Your task to perform on an android device: turn on showing notifications on the lock screen Image 0: 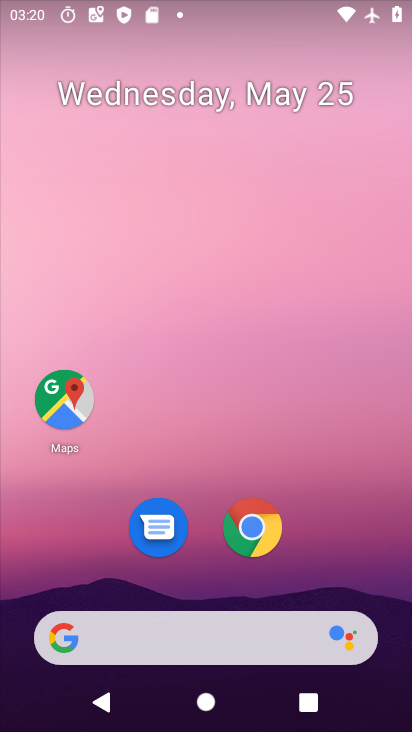
Step 0: drag from (214, 594) to (247, 253)
Your task to perform on an android device: turn on showing notifications on the lock screen Image 1: 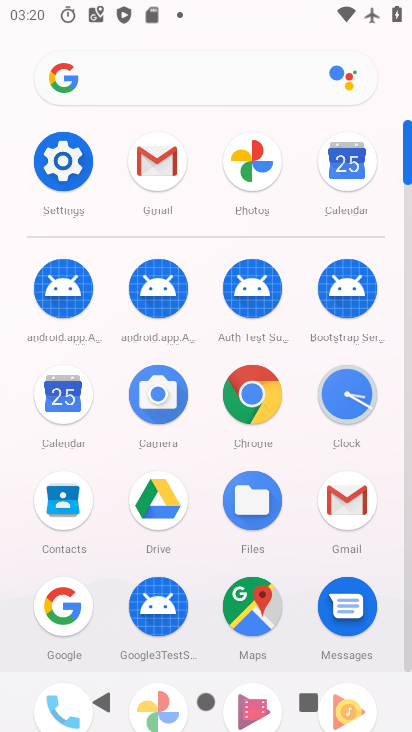
Step 1: click (52, 176)
Your task to perform on an android device: turn on showing notifications on the lock screen Image 2: 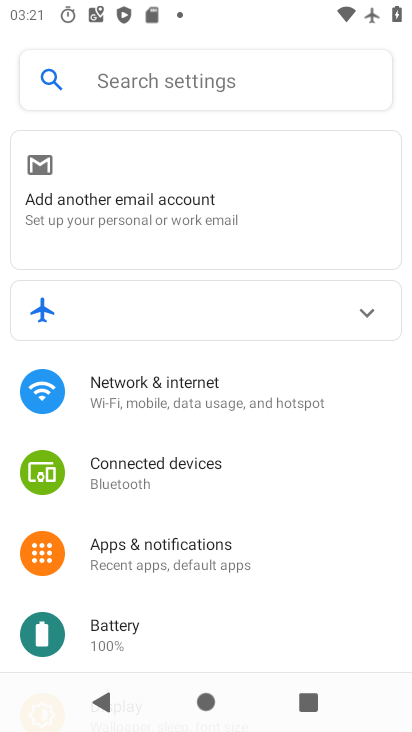
Step 2: drag from (225, 615) to (287, 162)
Your task to perform on an android device: turn on showing notifications on the lock screen Image 3: 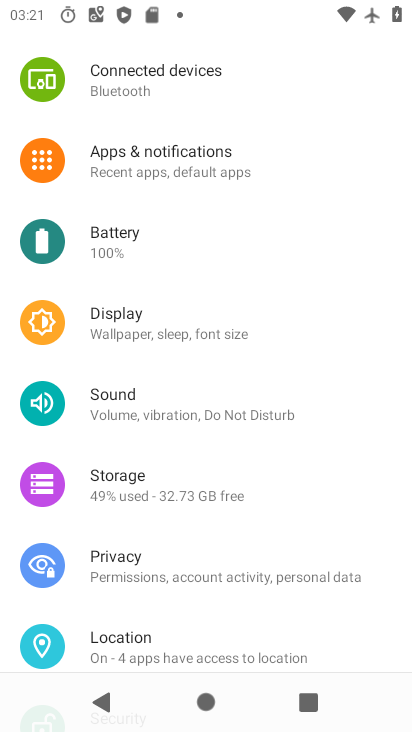
Step 3: click (161, 152)
Your task to perform on an android device: turn on showing notifications on the lock screen Image 4: 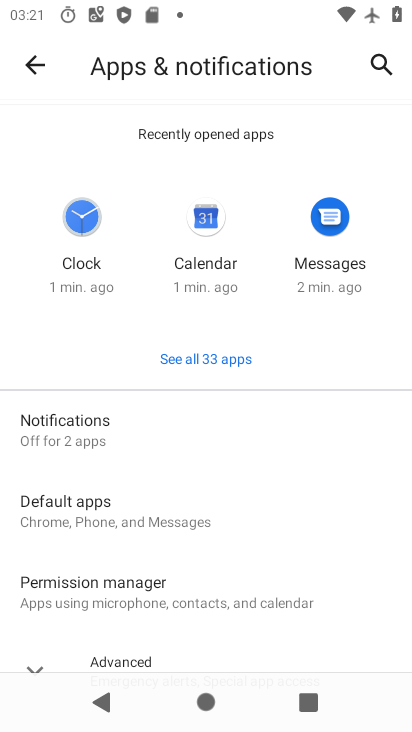
Step 4: drag from (167, 544) to (216, 170)
Your task to perform on an android device: turn on showing notifications on the lock screen Image 5: 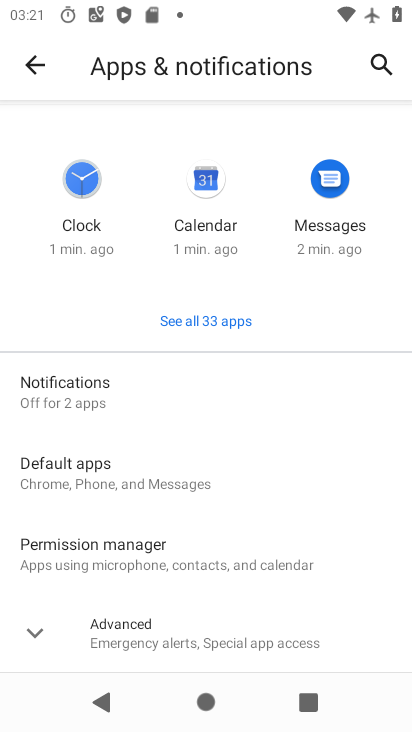
Step 5: click (187, 638)
Your task to perform on an android device: turn on showing notifications on the lock screen Image 6: 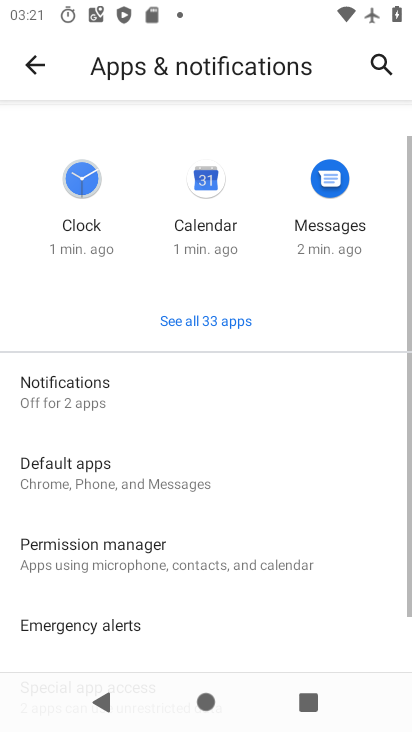
Step 6: click (143, 375)
Your task to perform on an android device: turn on showing notifications on the lock screen Image 7: 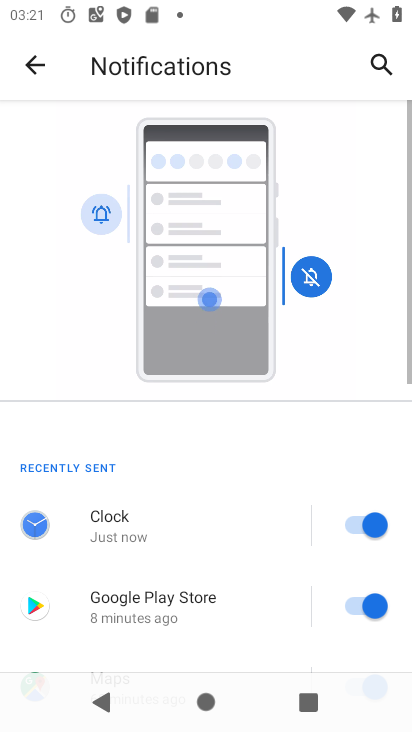
Step 7: drag from (242, 556) to (263, 145)
Your task to perform on an android device: turn on showing notifications on the lock screen Image 8: 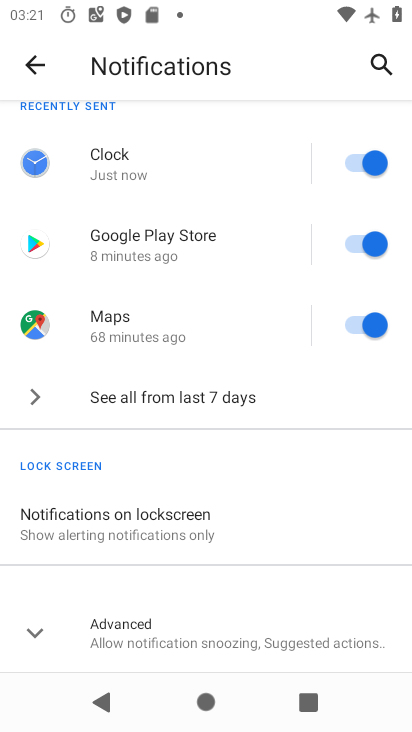
Step 8: click (190, 539)
Your task to perform on an android device: turn on showing notifications on the lock screen Image 9: 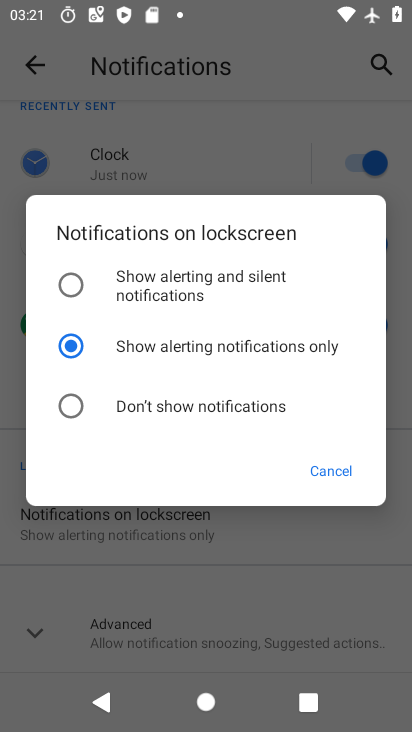
Step 9: task complete